Your task to perform on an android device: Open eBay Image 0: 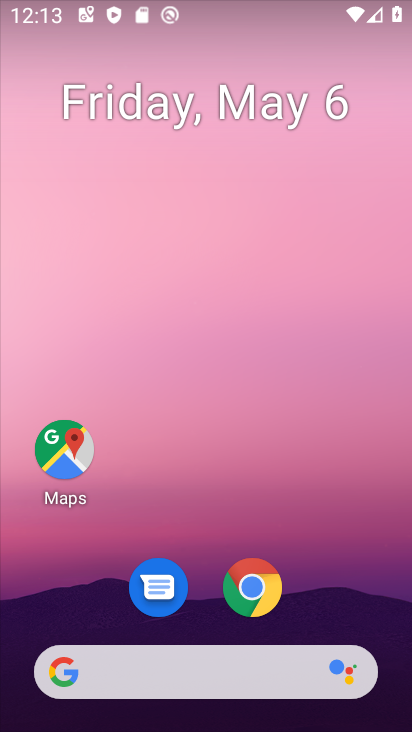
Step 0: click (250, 594)
Your task to perform on an android device: Open eBay Image 1: 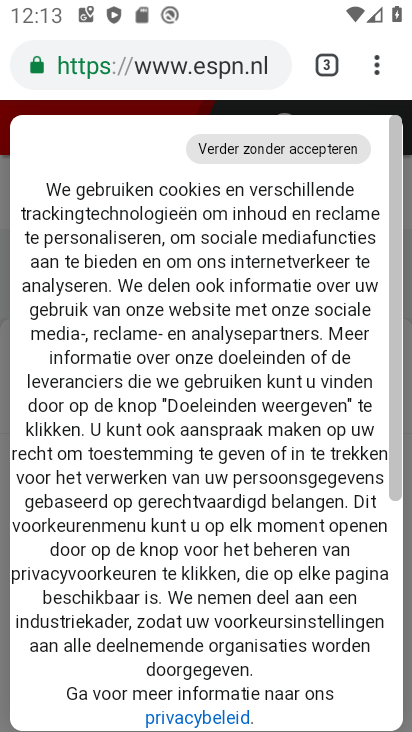
Step 1: click (324, 60)
Your task to perform on an android device: Open eBay Image 2: 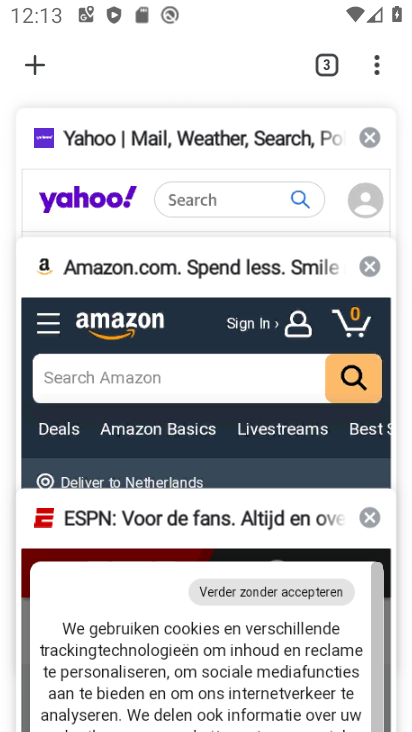
Step 2: click (29, 60)
Your task to perform on an android device: Open eBay Image 3: 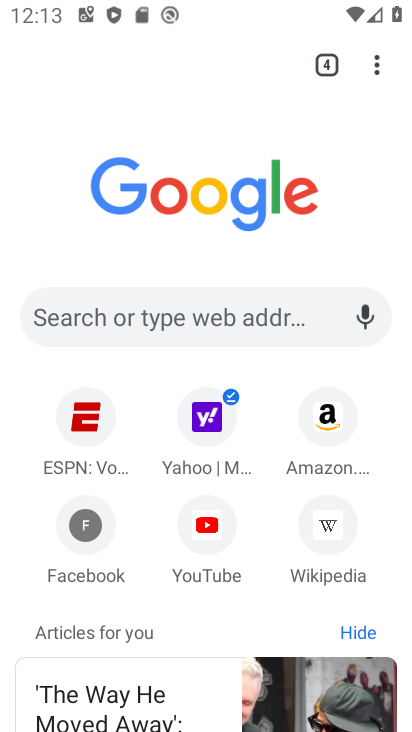
Step 3: click (143, 313)
Your task to perform on an android device: Open eBay Image 4: 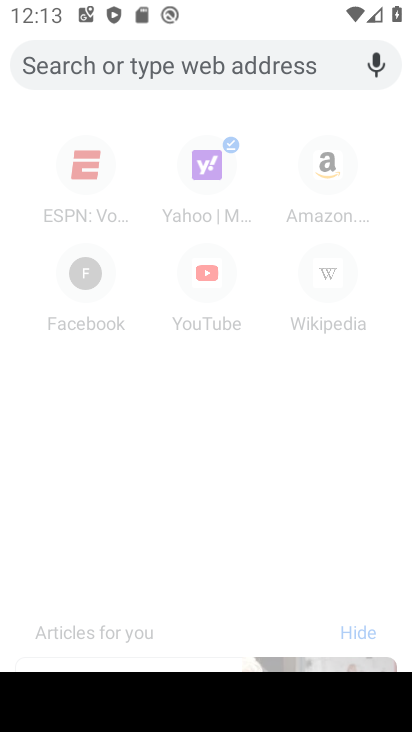
Step 4: type "ebay"
Your task to perform on an android device: Open eBay Image 5: 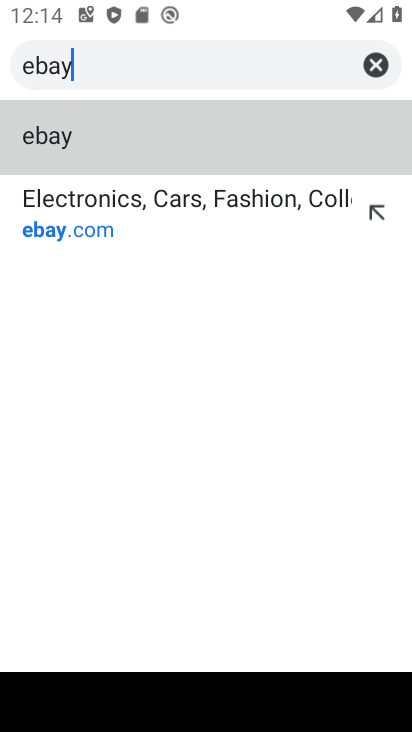
Step 5: click (85, 227)
Your task to perform on an android device: Open eBay Image 6: 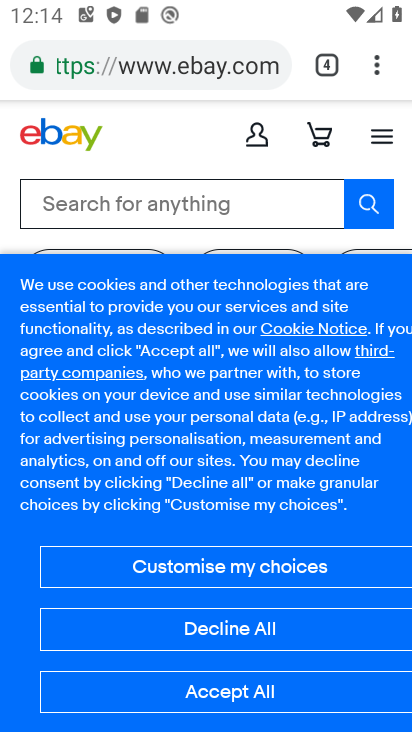
Step 6: task complete